Your task to perform on an android device: clear history in the chrome app Image 0: 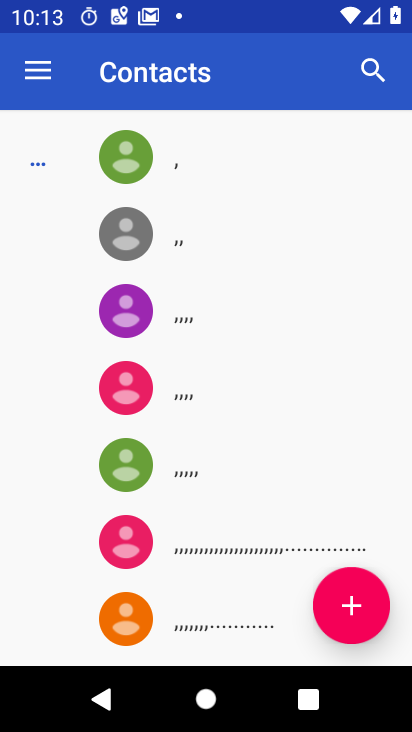
Step 0: press home button
Your task to perform on an android device: clear history in the chrome app Image 1: 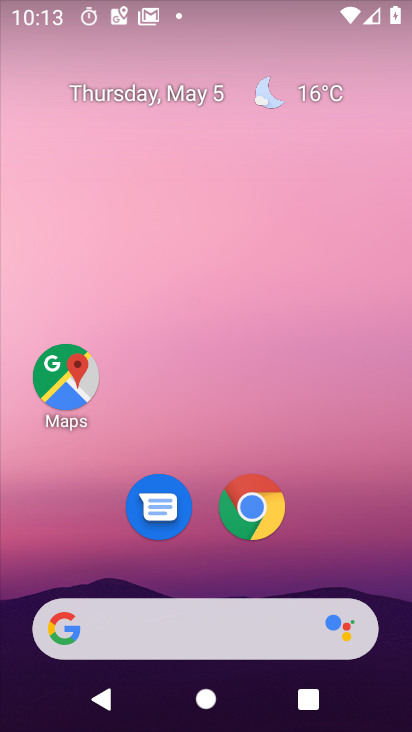
Step 1: click (240, 506)
Your task to perform on an android device: clear history in the chrome app Image 2: 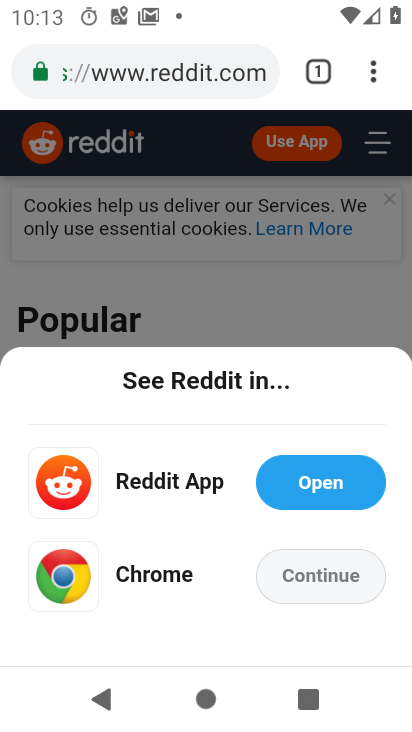
Step 2: click (368, 74)
Your task to perform on an android device: clear history in the chrome app Image 3: 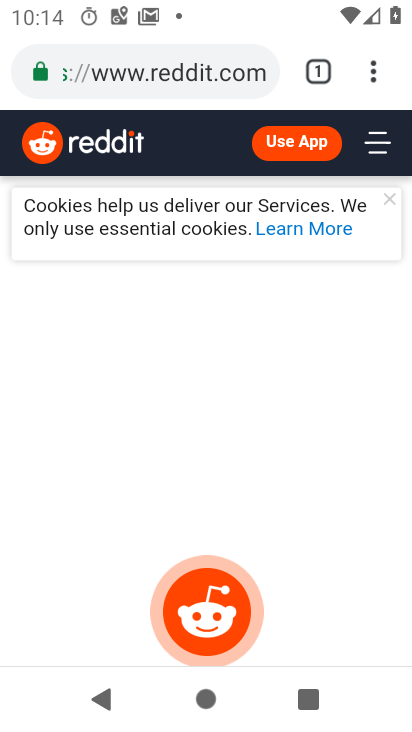
Step 3: click (380, 71)
Your task to perform on an android device: clear history in the chrome app Image 4: 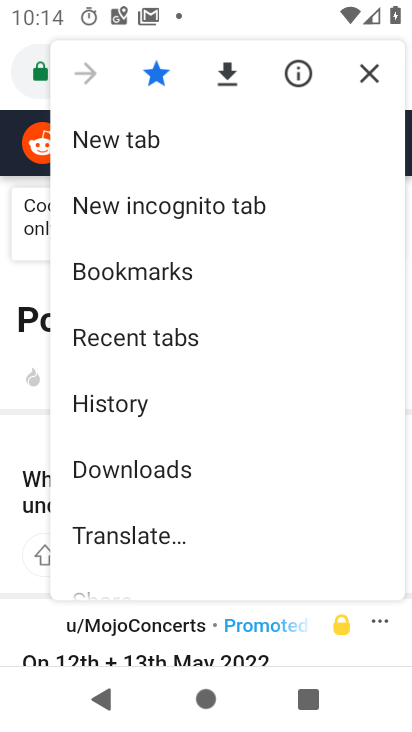
Step 4: click (113, 400)
Your task to perform on an android device: clear history in the chrome app Image 5: 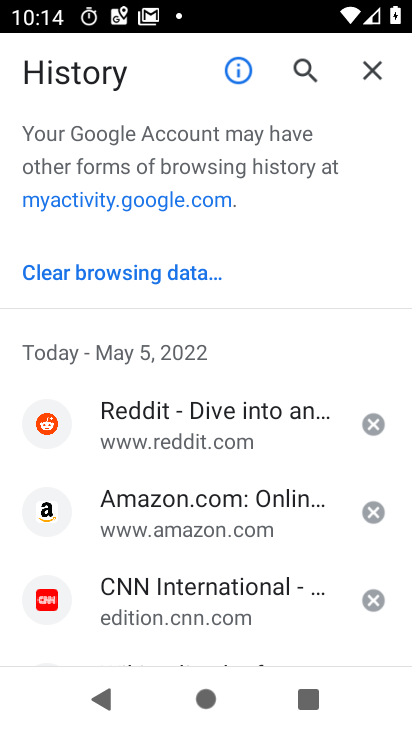
Step 5: click (135, 283)
Your task to perform on an android device: clear history in the chrome app Image 6: 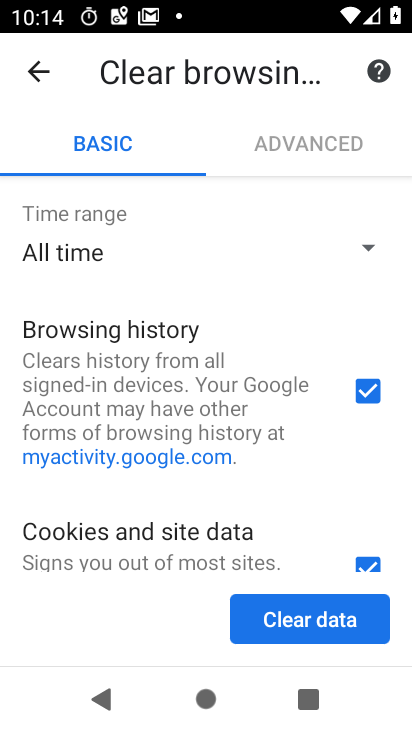
Step 6: drag from (336, 522) to (382, 263)
Your task to perform on an android device: clear history in the chrome app Image 7: 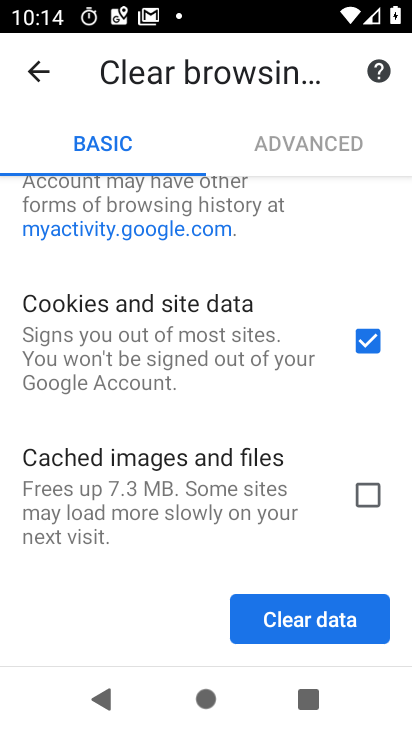
Step 7: click (376, 339)
Your task to perform on an android device: clear history in the chrome app Image 8: 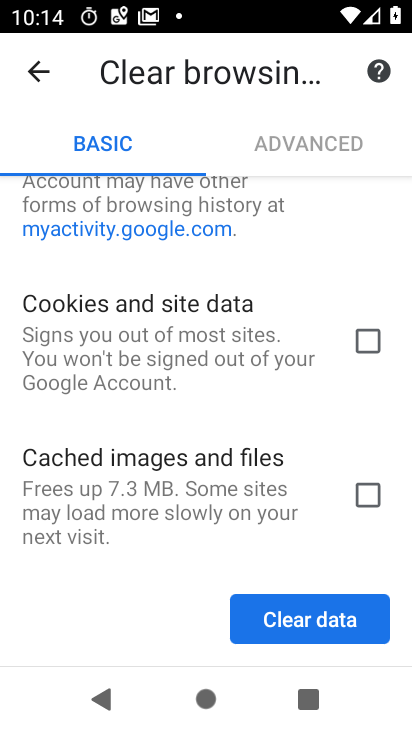
Step 8: click (305, 610)
Your task to perform on an android device: clear history in the chrome app Image 9: 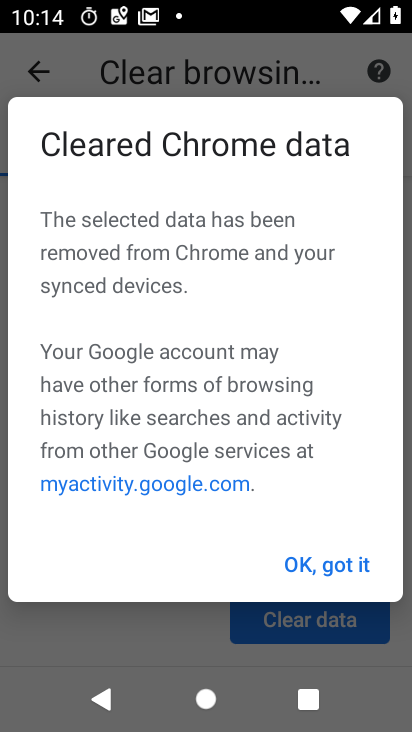
Step 9: click (331, 568)
Your task to perform on an android device: clear history in the chrome app Image 10: 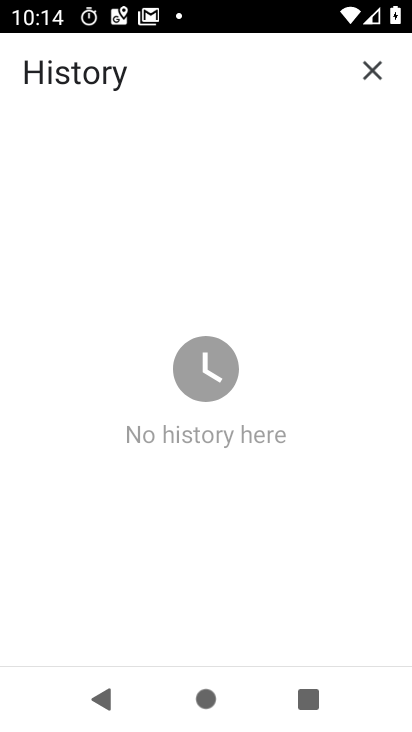
Step 10: task complete